Your task to perform on an android device: Check the settings for the Amazon Music app Image 0: 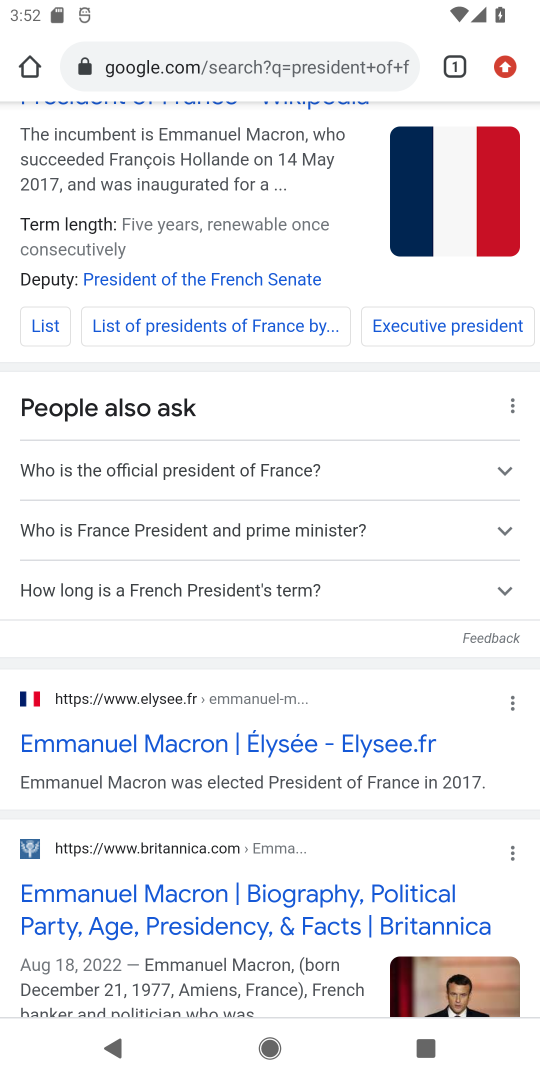
Step 0: press home button
Your task to perform on an android device: Check the settings for the Amazon Music app Image 1: 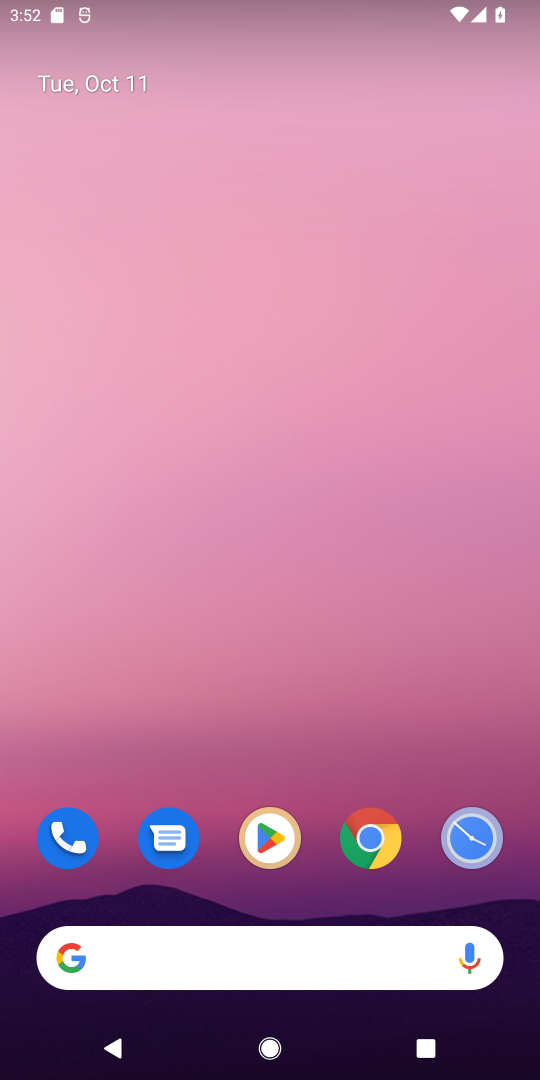
Step 1: click (258, 831)
Your task to perform on an android device: Check the settings for the Amazon Music app Image 2: 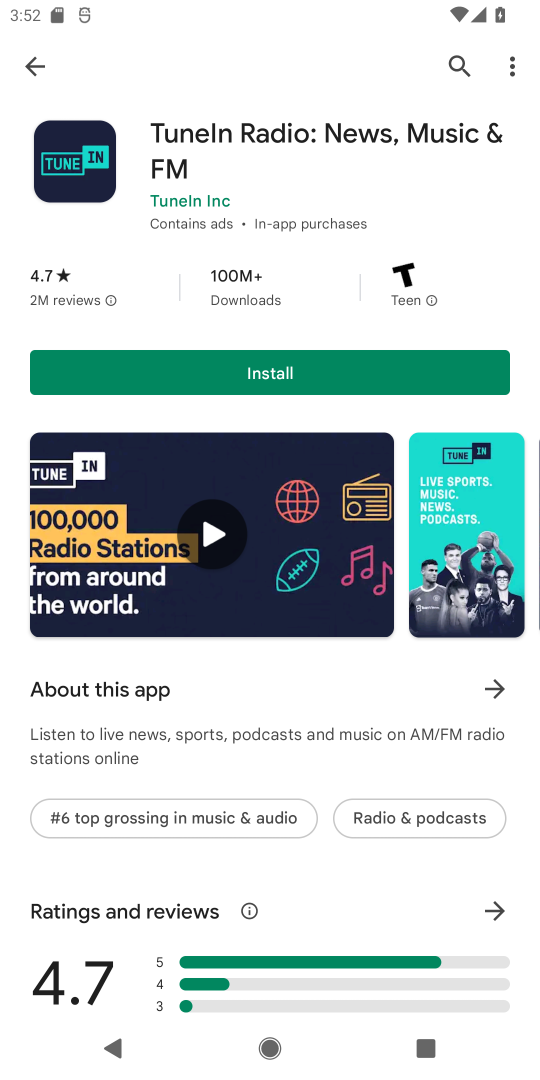
Step 2: click (455, 54)
Your task to perform on an android device: Check the settings for the Amazon Music app Image 3: 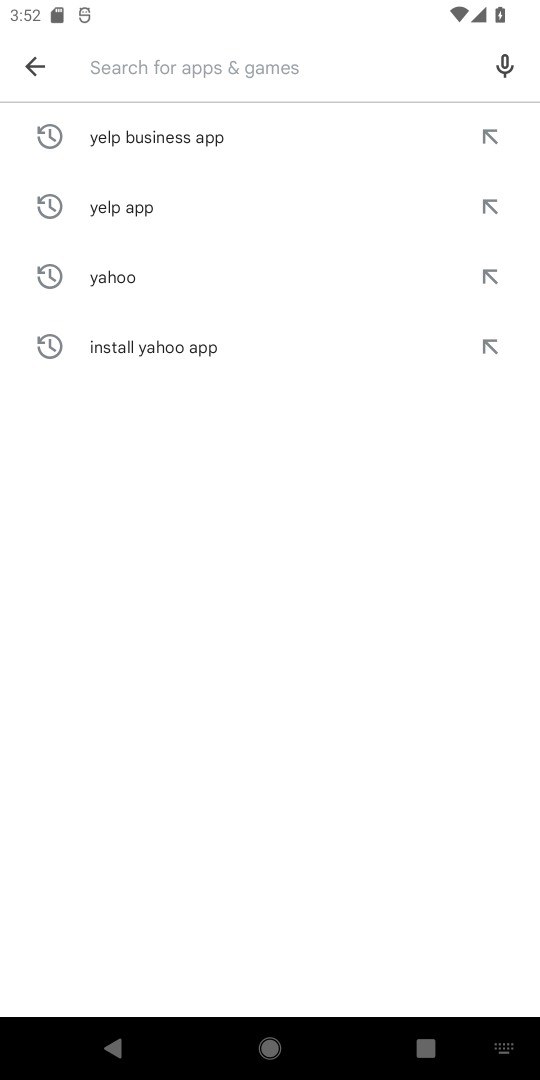
Step 3: press home button
Your task to perform on an android device: Check the settings for the Amazon Music app Image 4: 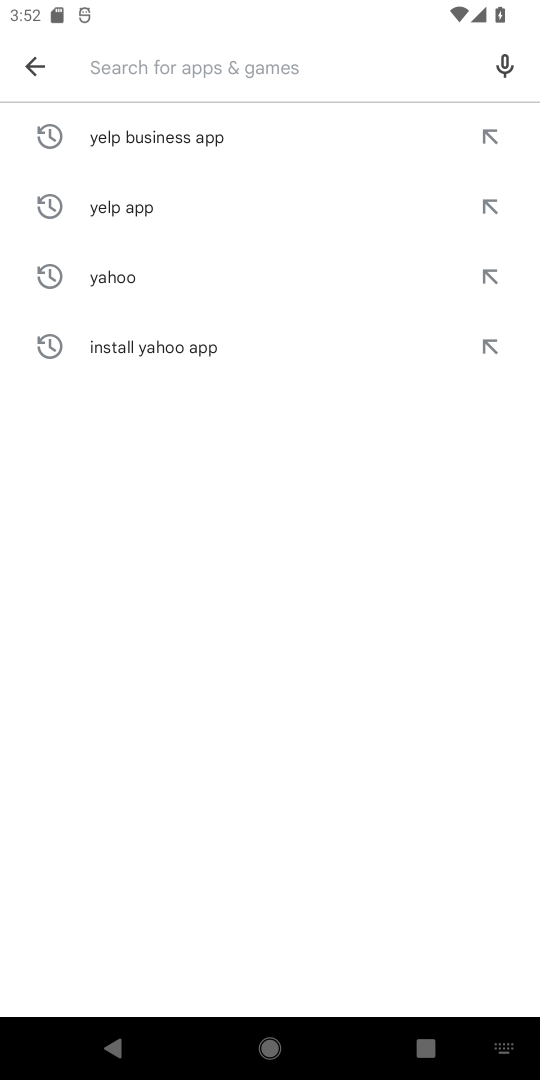
Step 4: type "amazon "
Your task to perform on an android device: Check the settings for the Amazon Music app Image 5: 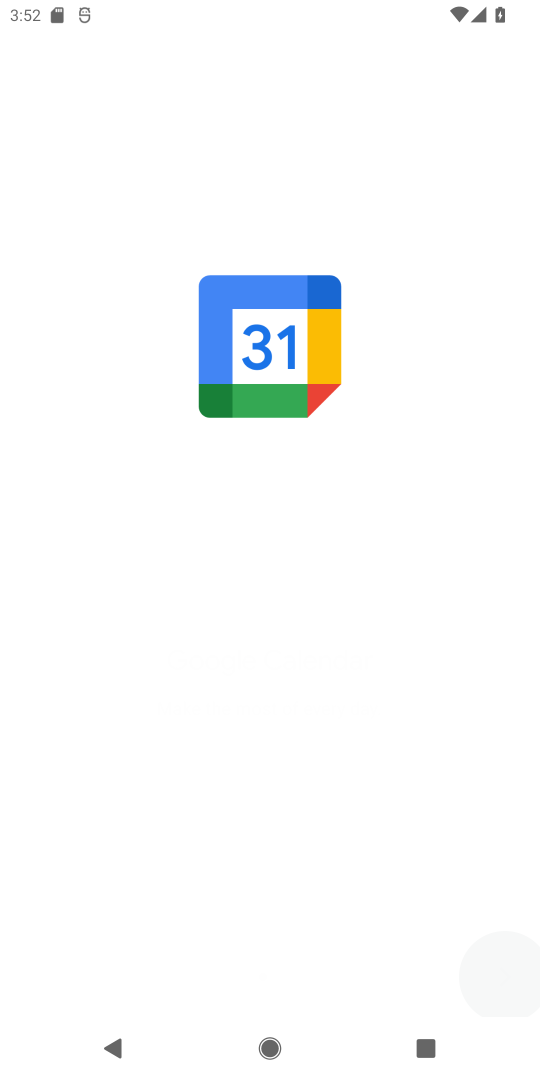
Step 5: drag from (260, 726) to (258, 565)
Your task to perform on an android device: Check the settings for the Amazon Music app Image 6: 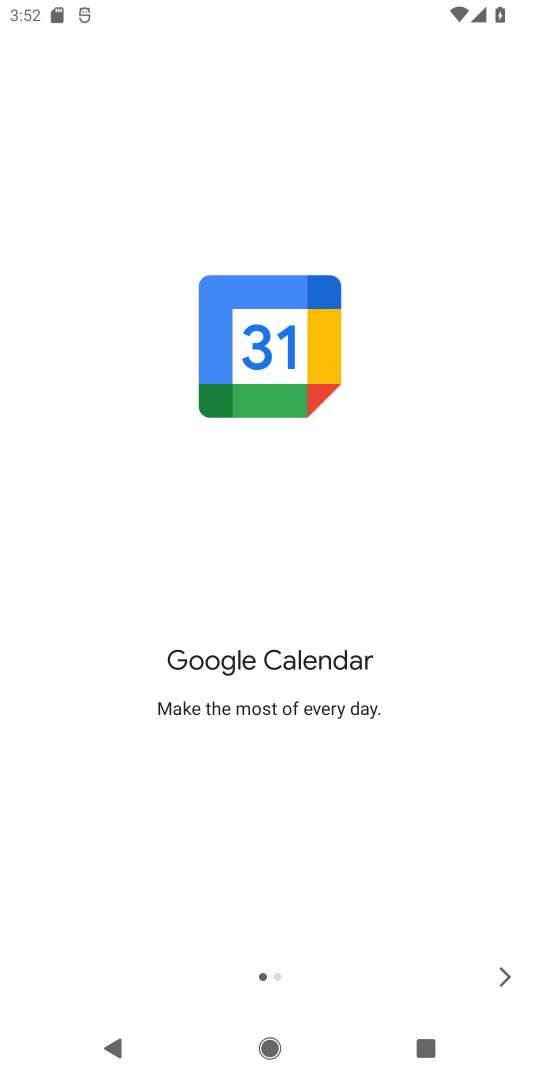
Step 6: press back button
Your task to perform on an android device: Check the settings for the Amazon Music app Image 7: 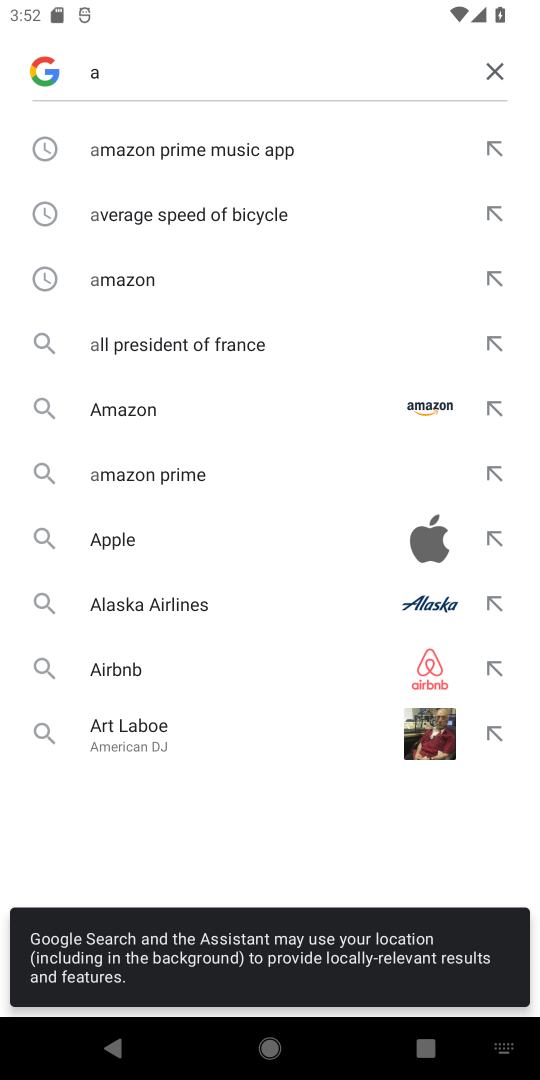
Step 7: click (493, 72)
Your task to perform on an android device: Check the settings for the Amazon Music app Image 8: 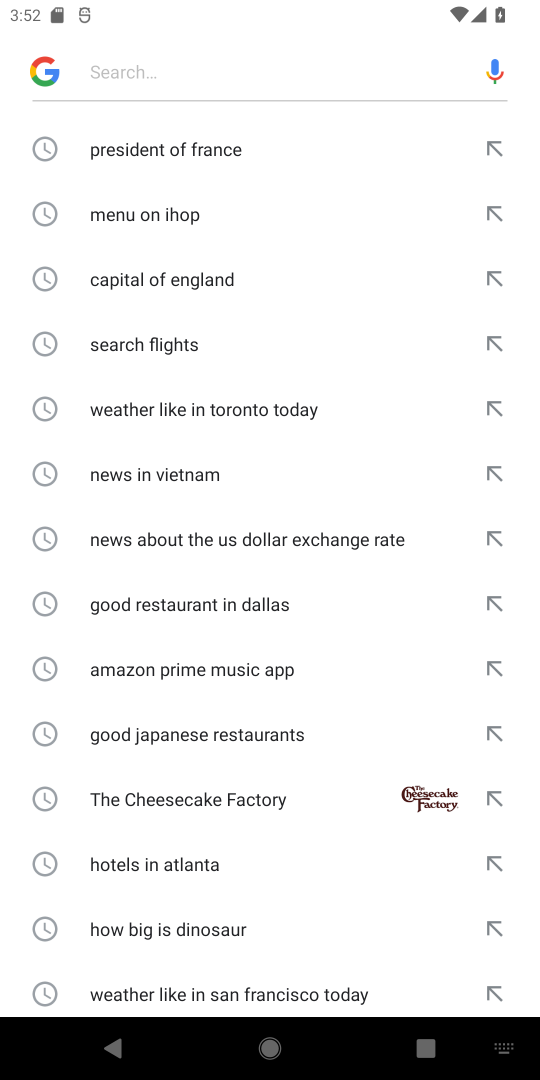
Step 8: press back button
Your task to perform on an android device: Check the settings for the Amazon Music app Image 9: 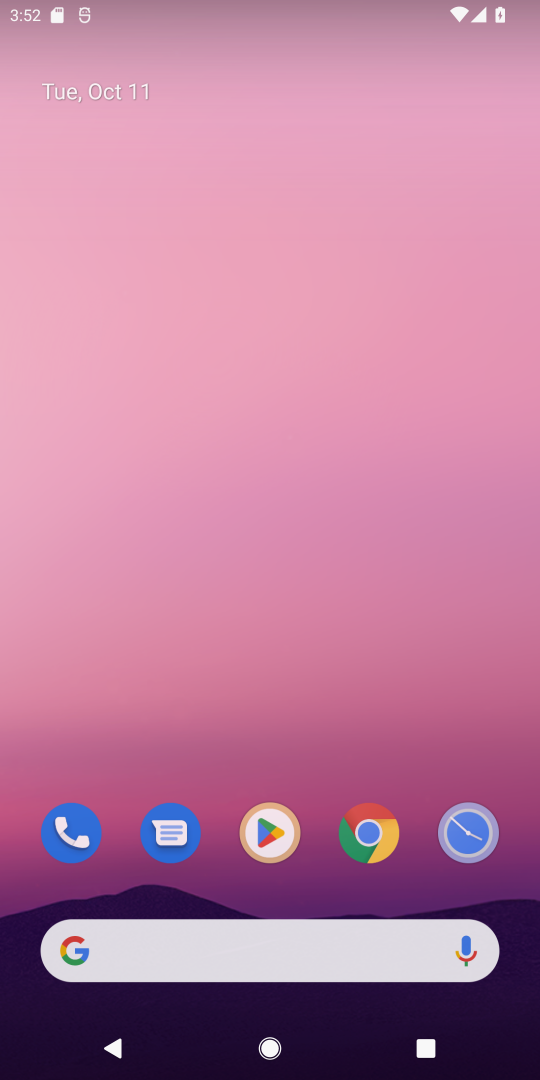
Step 9: press home button
Your task to perform on an android device: Check the settings for the Amazon Music app Image 10: 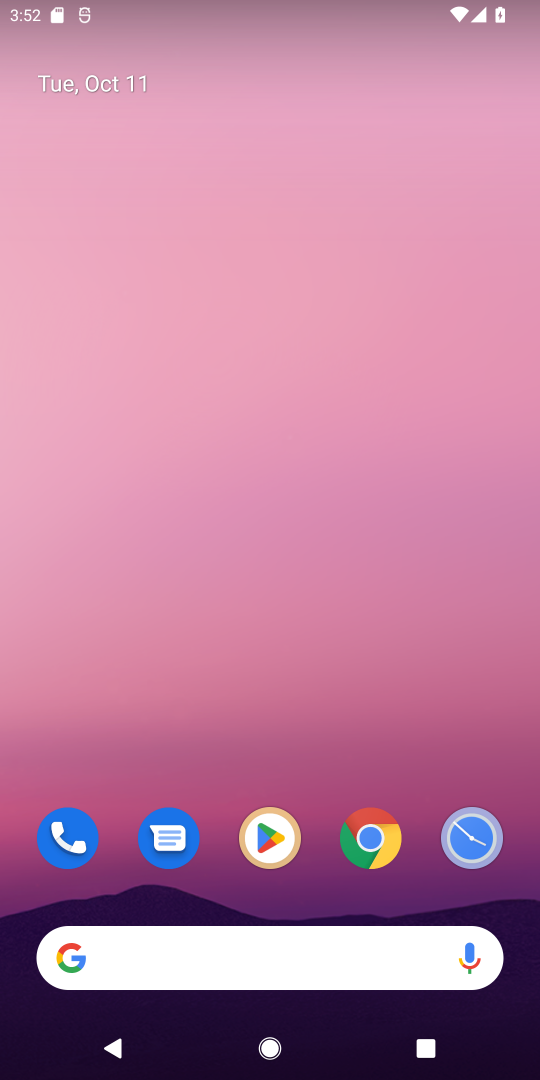
Step 10: drag from (253, 86) to (252, 37)
Your task to perform on an android device: Check the settings for the Amazon Music app Image 11: 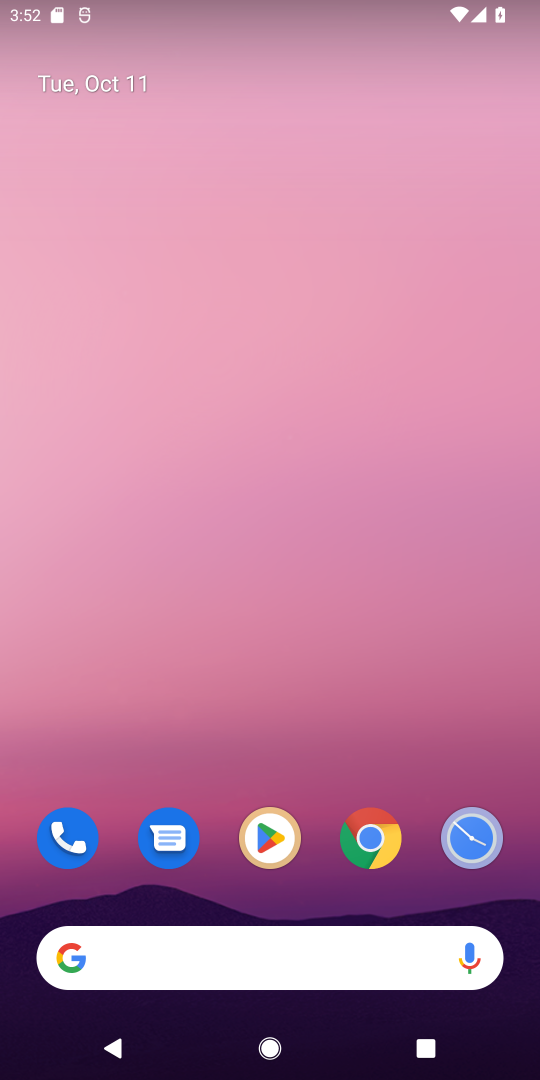
Step 11: drag from (261, 357) to (281, 221)
Your task to perform on an android device: Check the settings for the Amazon Music app Image 12: 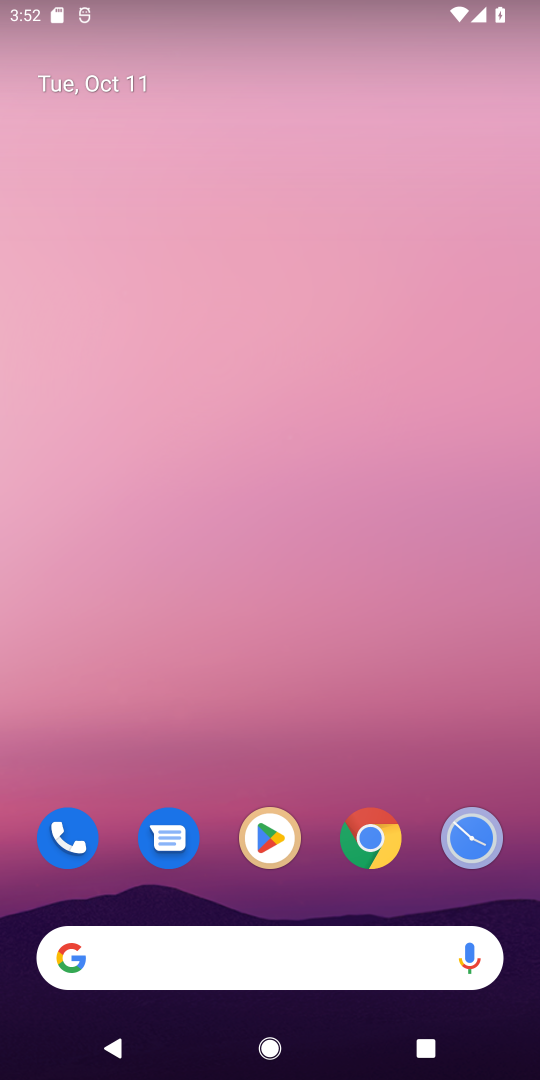
Step 12: drag from (257, 749) to (309, 174)
Your task to perform on an android device: Check the settings for the Amazon Music app Image 13: 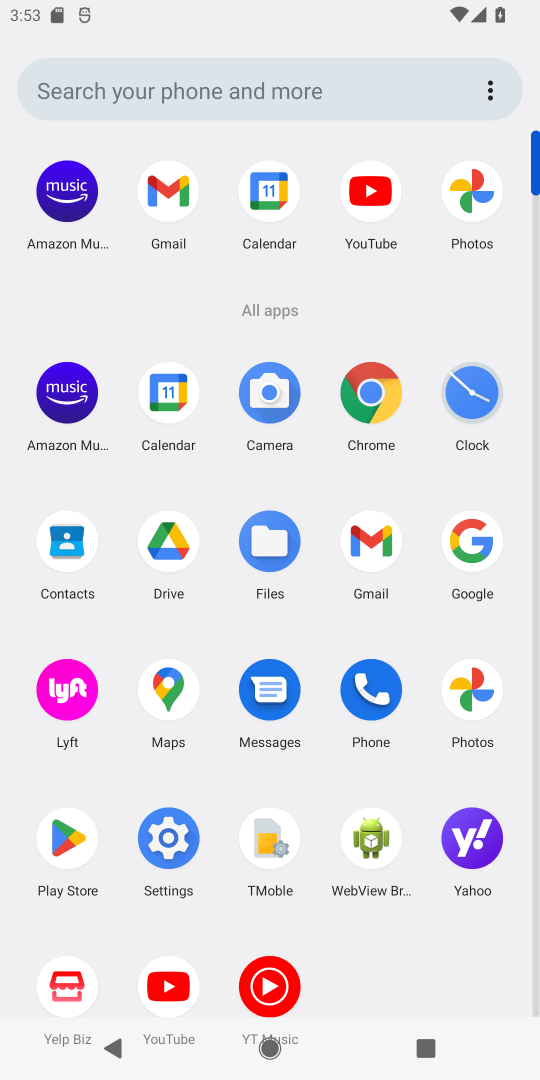
Step 13: click (46, 389)
Your task to perform on an android device: Check the settings for the Amazon Music app Image 14: 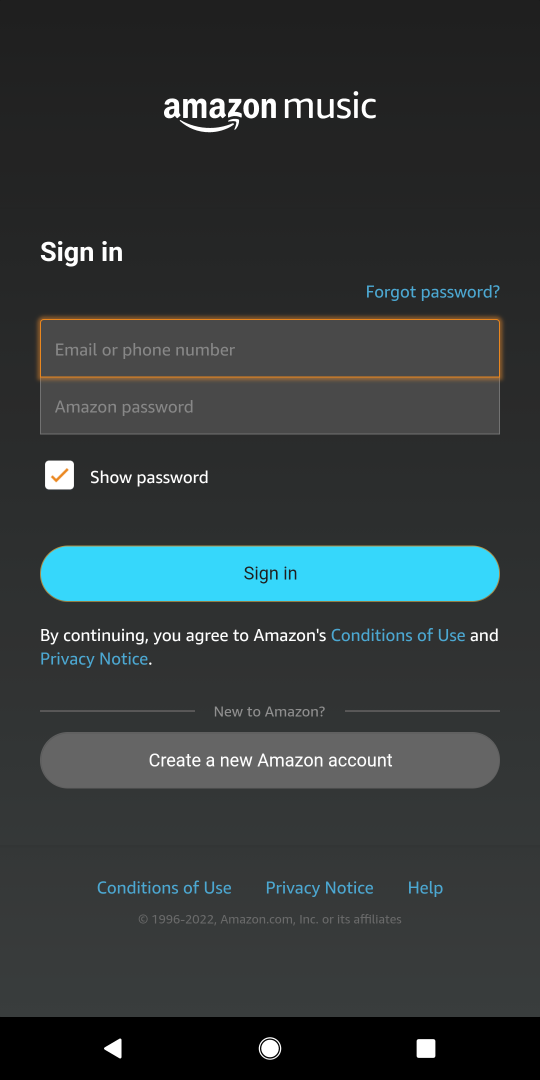
Step 14: click (208, 109)
Your task to perform on an android device: Check the settings for the Amazon Music app Image 15: 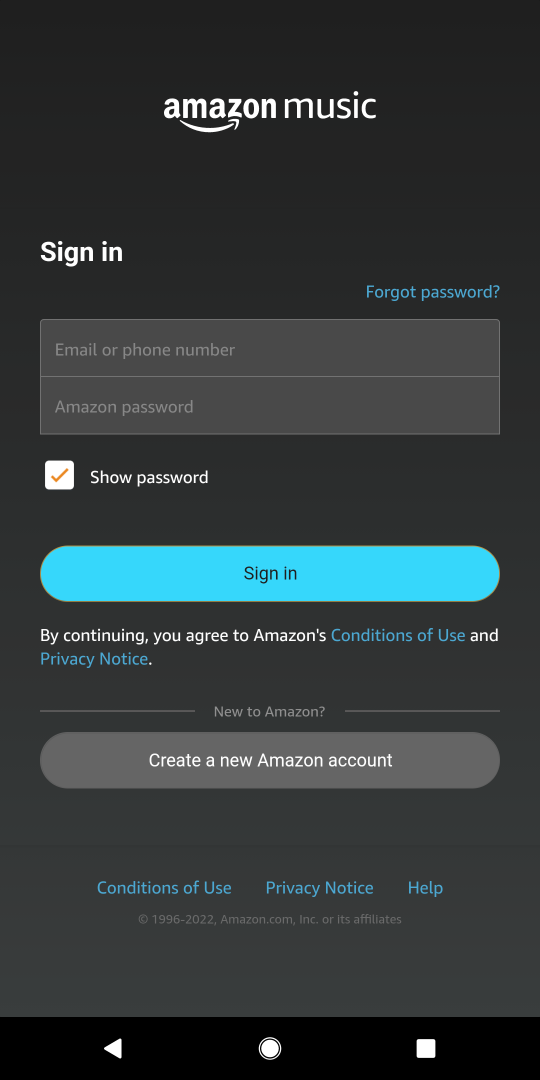
Step 15: task complete